Your task to perform on an android device: read, delete, or share a saved page in the chrome app Image 0: 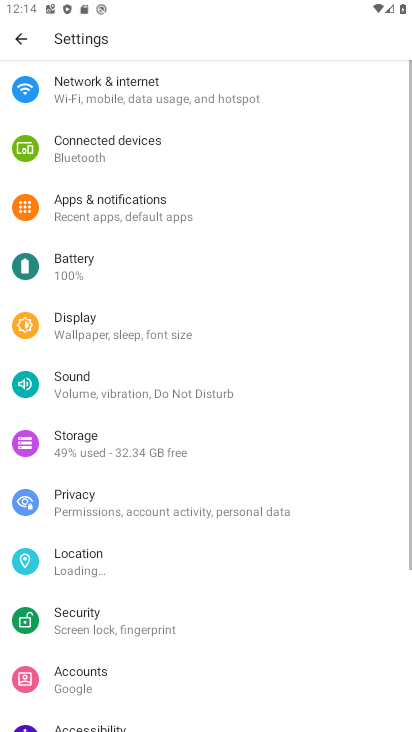
Step 0: drag from (332, 626) to (301, 291)
Your task to perform on an android device: read, delete, or share a saved page in the chrome app Image 1: 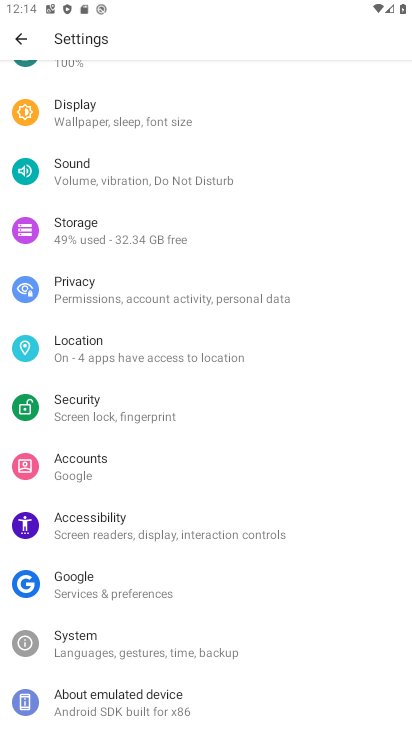
Step 1: press home button
Your task to perform on an android device: read, delete, or share a saved page in the chrome app Image 2: 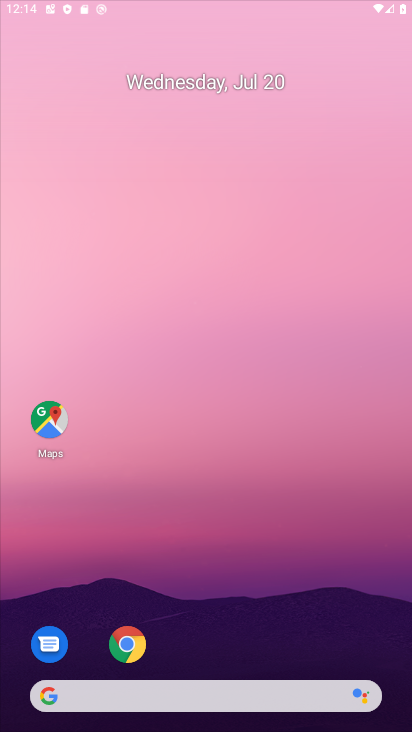
Step 2: drag from (239, 413) to (174, 23)
Your task to perform on an android device: read, delete, or share a saved page in the chrome app Image 3: 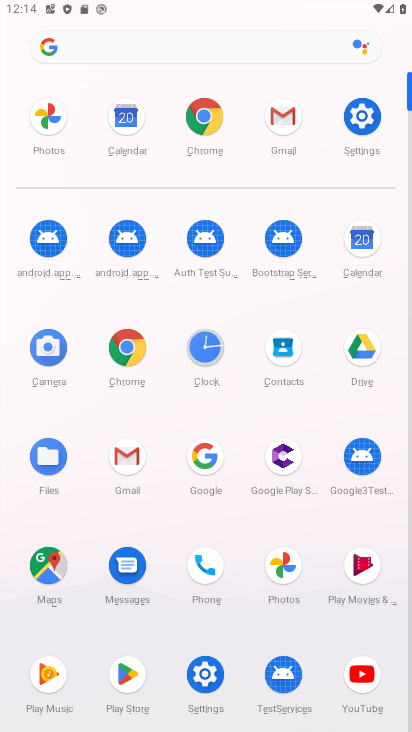
Step 3: click (195, 145)
Your task to perform on an android device: read, delete, or share a saved page in the chrome app Image 4: 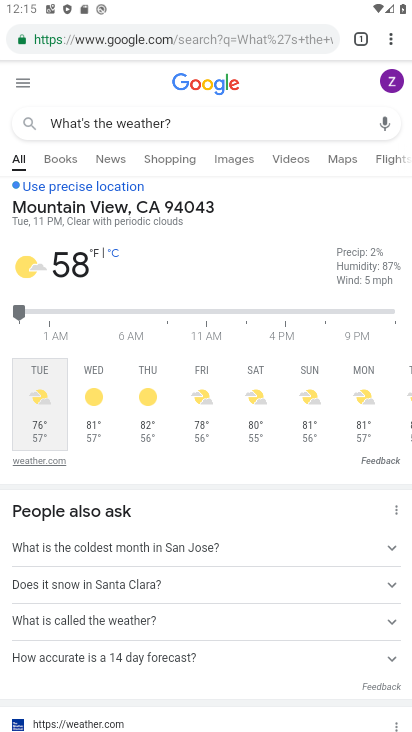
Step 4: drag from (382, 53) to (268, 248)
Your task to perform on an android device: read, delete, or share a saved page in the chrome app Image 5: 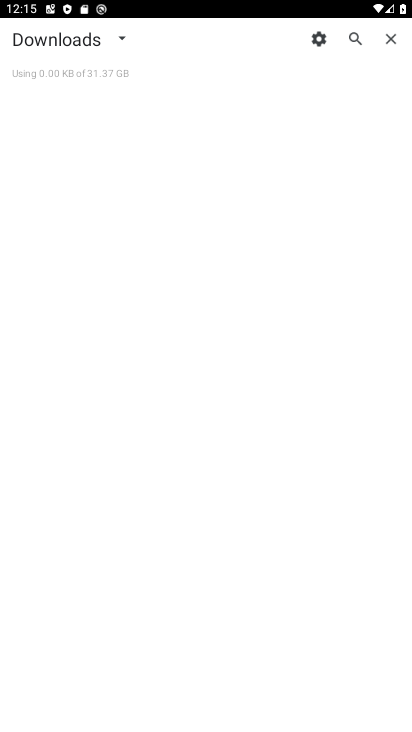
Step 5: click (120, 36)
Your task to perform on an android device: read, delete, or share a saved page in the chrome app Image 6: 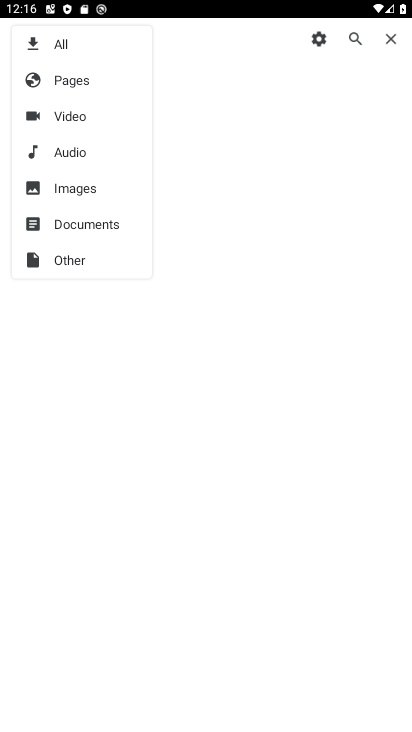
Step 6: click (51, 92)
Your task to perform on an android device: read, delete, or share a saved page in the chrome app Image 7: 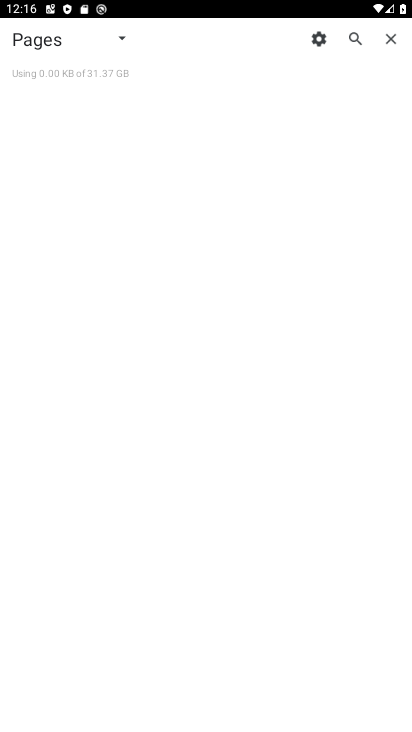
Step 7: task complete